Your task to perform on an android device: toggle location history Image 0: 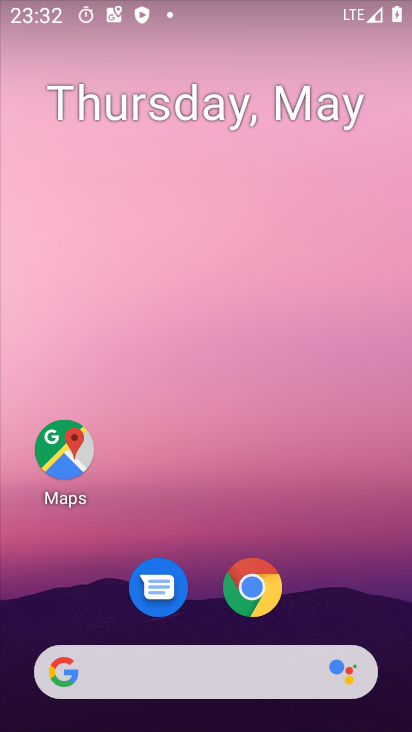
Step 0: click (56, 448)
Your task to perform on an android device: toggle location history Image 1: 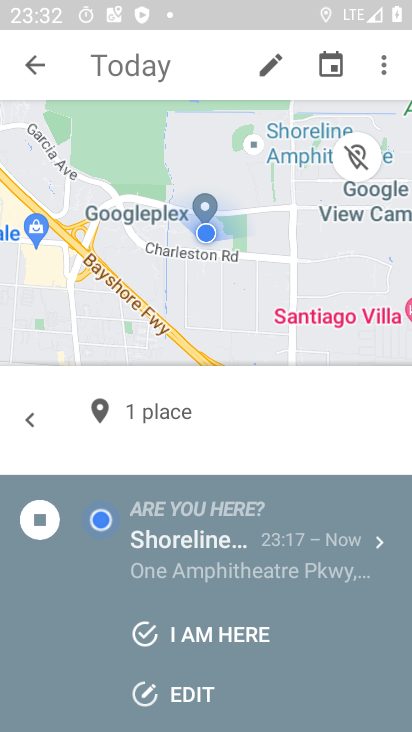
Step 1: click (385, 67)
Your task to perform on an android device: toggle location history Image 2: 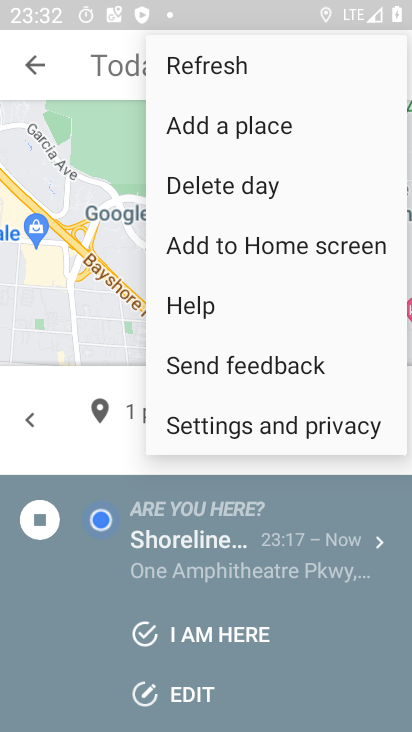
Step 2: click (234, 425)
Your task to perform on an android device: toggle location history Image 3: 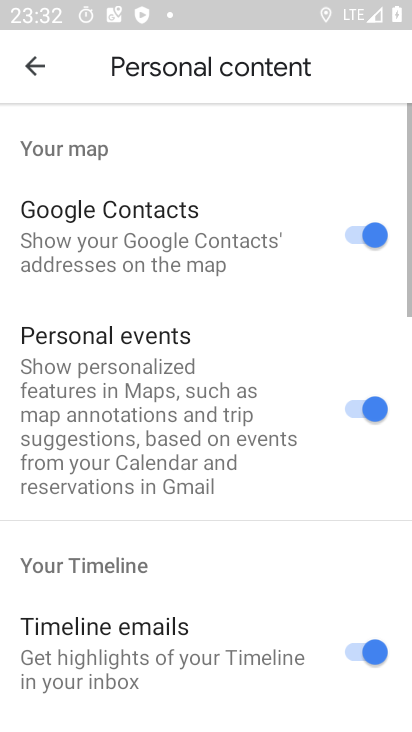
Step 3: drag from (230, 537) to (218, 152)
Your task to perform on an android device: toggle location history Image 4: 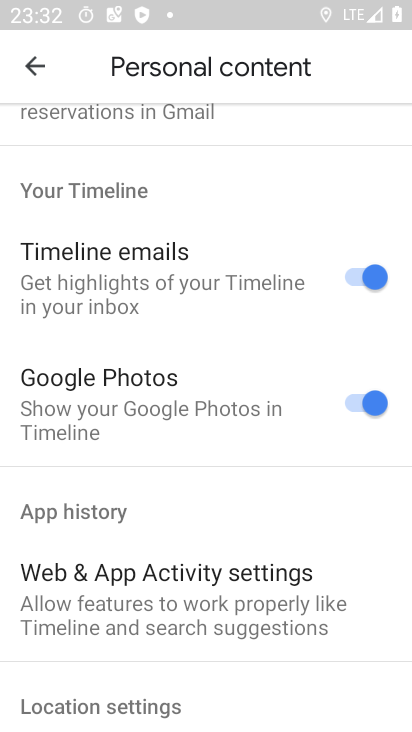
Step 4: drag from (152, 460) to (152, 139)
Your task to perform on an android device: toggle location history Image 5: 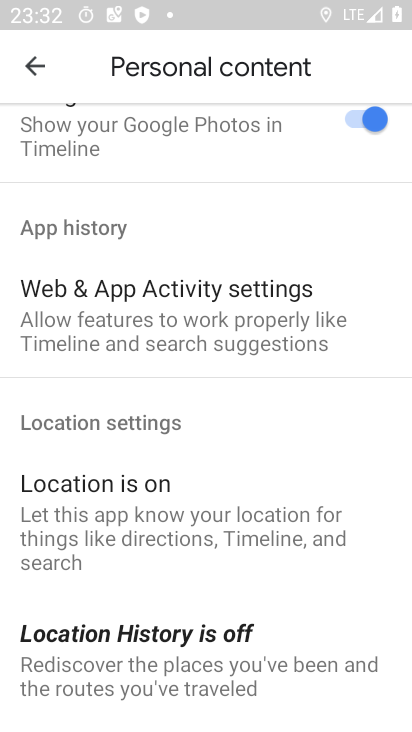
Step 5: drag from (181, 496) to (186, 244)
Your task to perform on an android device: toggle location history Image 6: 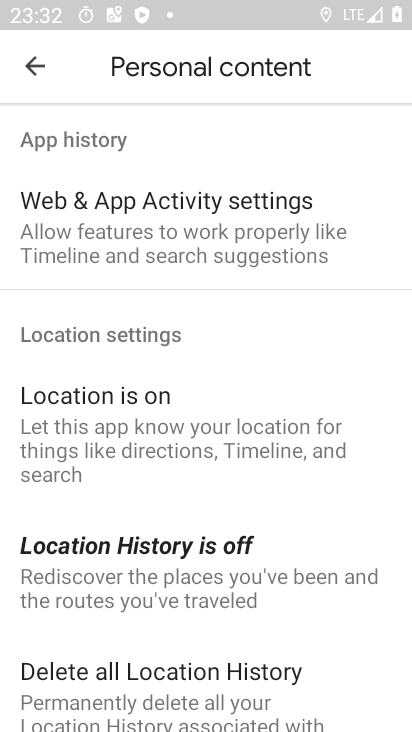
Step 6: click (135, 568)
Your task to perform on an android device: toggle location history Image 7: 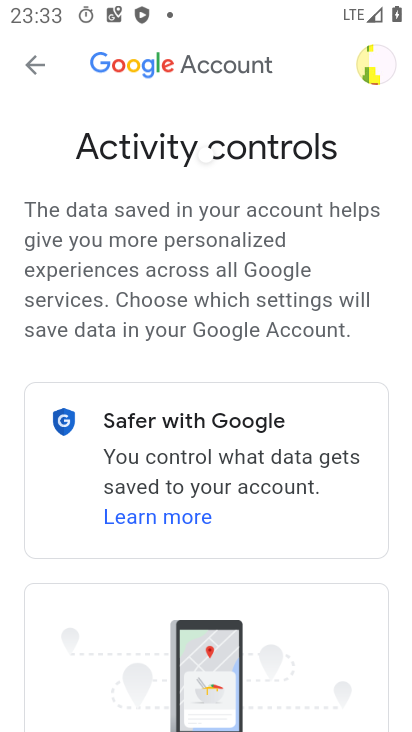
Step 7: drag from (279, 612) to (271, 7)
Your task to perform on an android device: toggle location history Image 8: 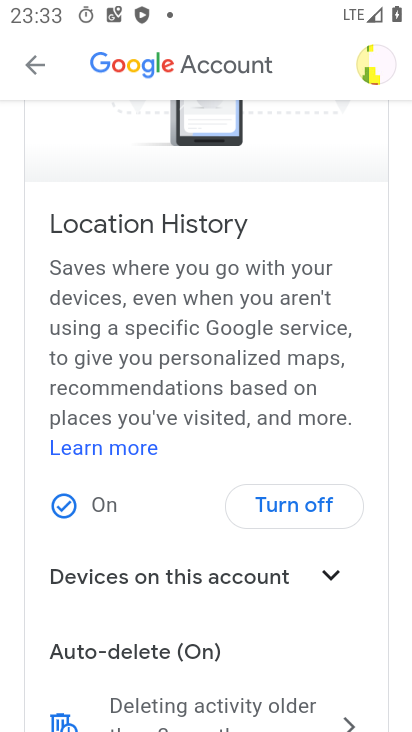
Step 8: click (316, 510)
Your task to perform on an android device: toggle location history Image 9: 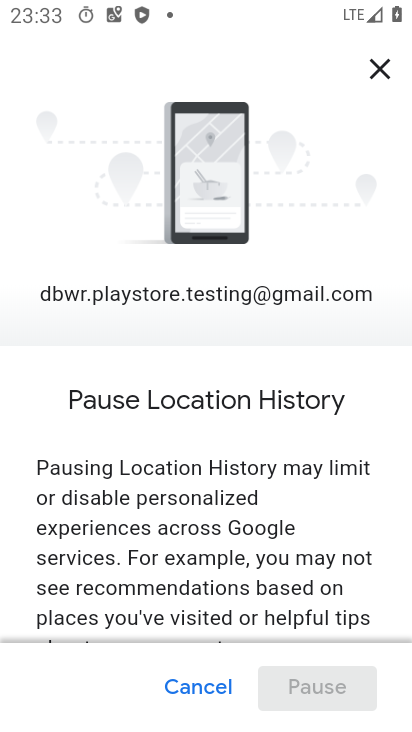
Step 9: drag from (217, 604) to (209, 7)
Your task to perform on an android device: toggle location history Image 10: 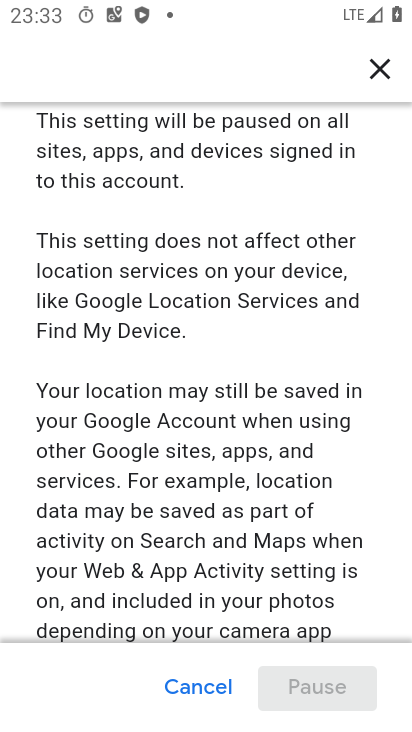
Step 10: drag from (226, 593) to (173, 13)
Your task to perform on an android device: toggle location history Image 11: 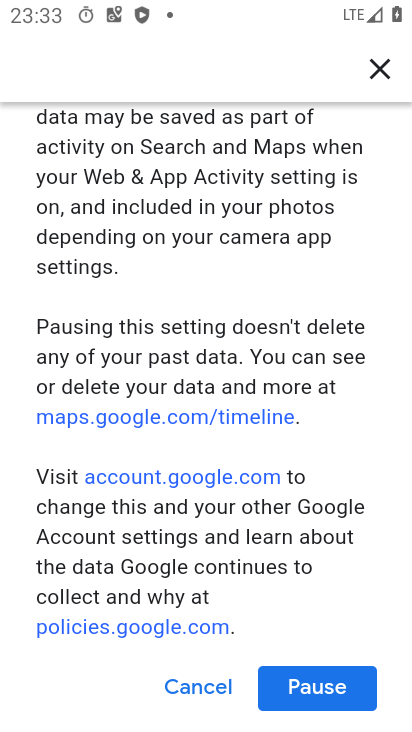
Step 11: click (334, 702)
Your task to perform on an android device: toggle location history Image 12: 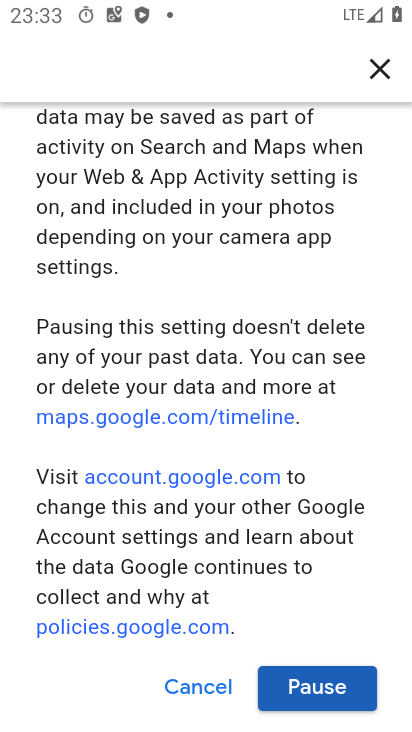
Step 12: click (333, 696)
Your task to perform on an android device: toggle location history Image 13: 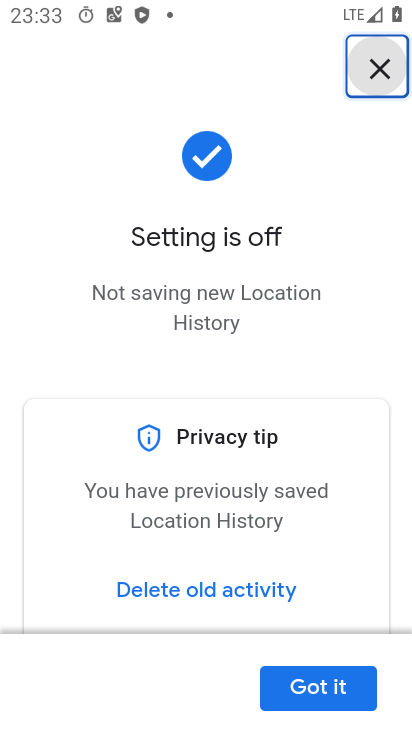
Step 13: click (318, 683)
Your task to perform on an android device: toggle location history Image 14: 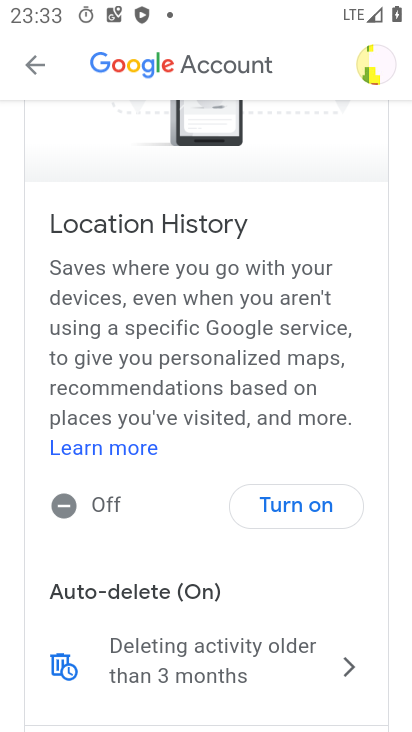
Step 14: task complete